Your task to perform on an android device: Go to Amazon Image 0: 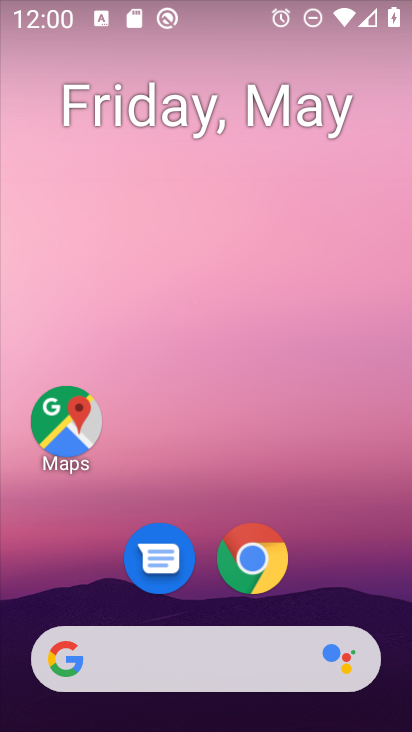
Step 0: click (247, 555)
Your task to perform on an android device: Go to Amazon Image 1: 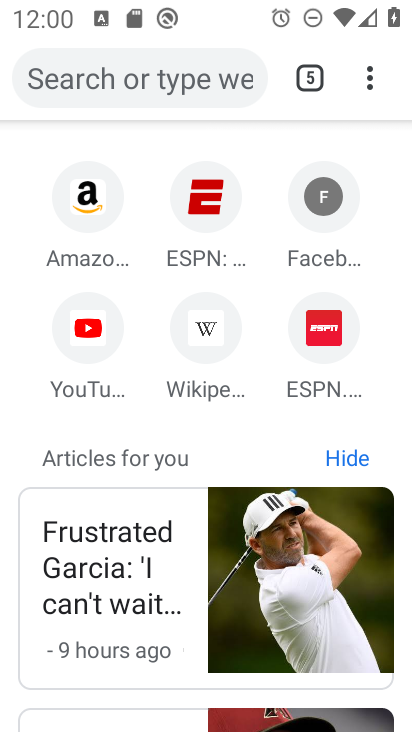
Step 1: click (76, 181)
Your task to perform on an android device: Go to Amazon Image 2: 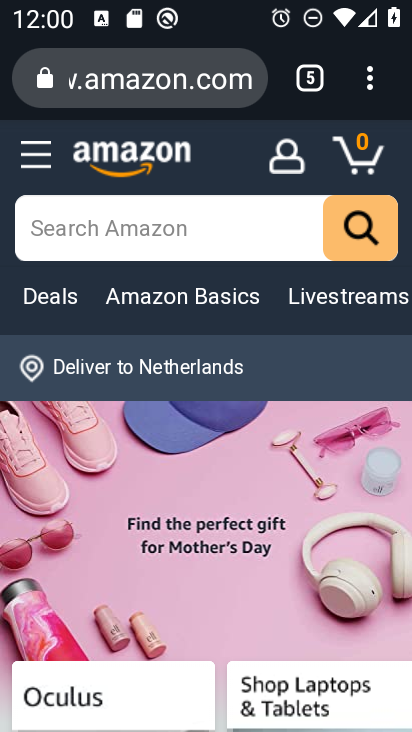
Step 2: task complete